Your task to perform on an android device: find photos in the google photos app Image 0: 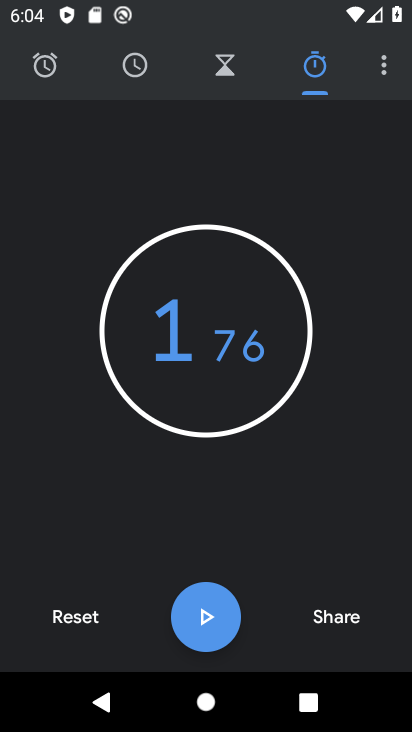
Step 0: press back button
Your task to perform on an android device: find photos in the google photos app Image 1: 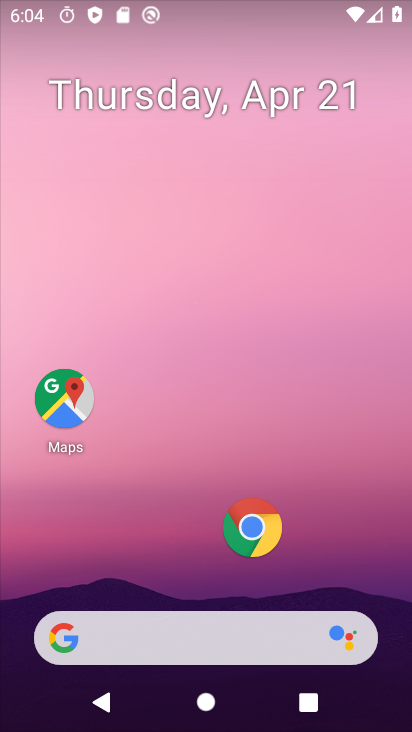
Step 1: drag from (152, 557) to (247, 84)
Your task to perform on an android device: find photos in the google photos app Image 2: 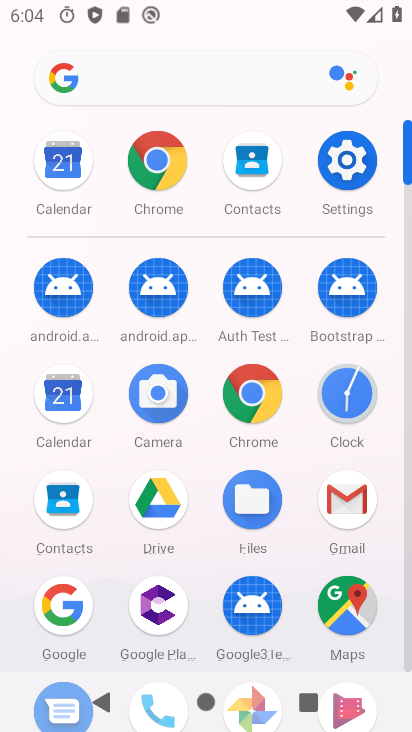
Step 2: drag from (240, 625) to (315, 100)
Your task to perform on an android device: find photos in the google photos app Image 3: 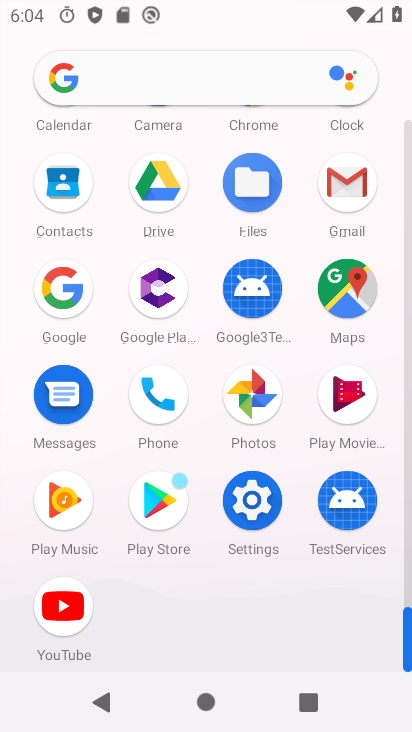
Step 3: click (253, 399)
Your task to perform on an android device: find photos in the google photos app Image 4: 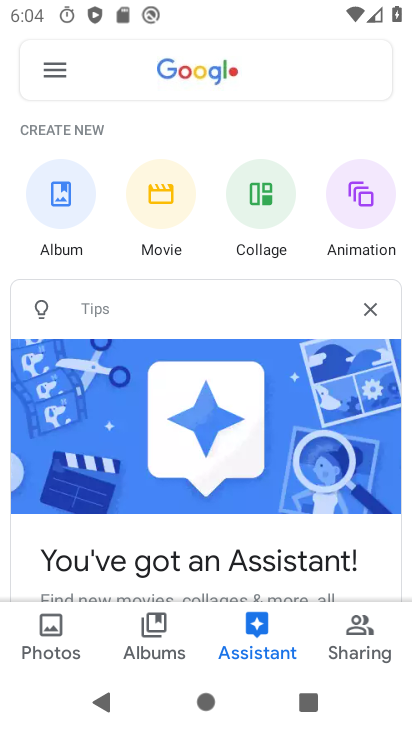
Step 4: click (50, 624)
Your task to perform on an android device: find photos in the google photos app Image 5: 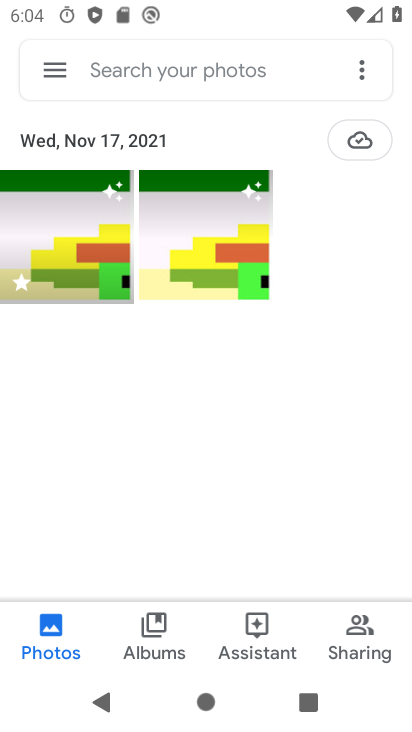
Step 5: task complete